Your task to perform on an android device: change your default location settings in chrome Image 0: 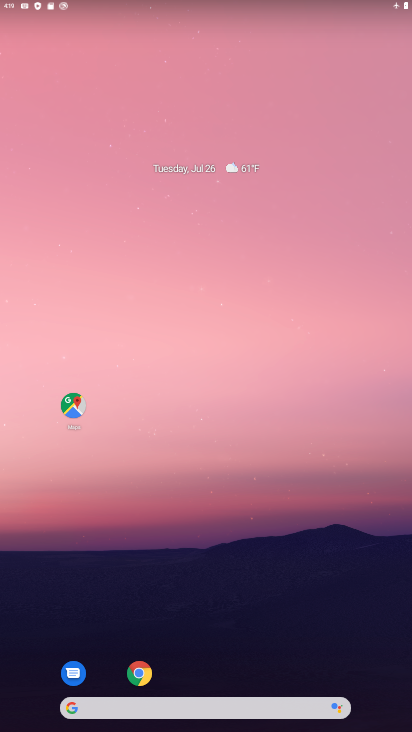
Step 0: press home button
Your task to perform on an android device: change your default location settings in chrome Image 1: 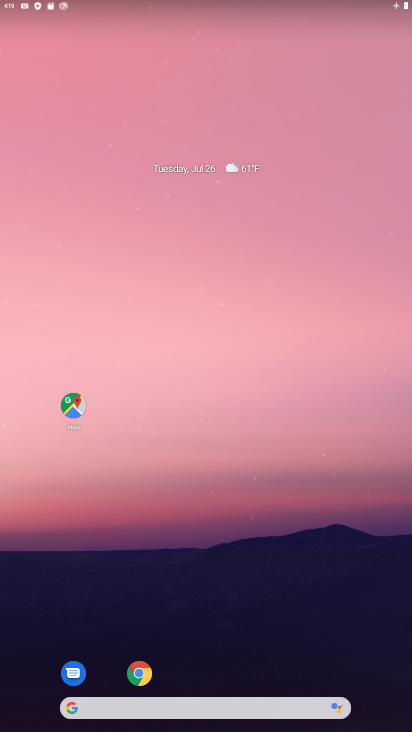
Step 1: click (137, 668)
Your task to perform on an android device: change your default location settings in chrome Image 2: 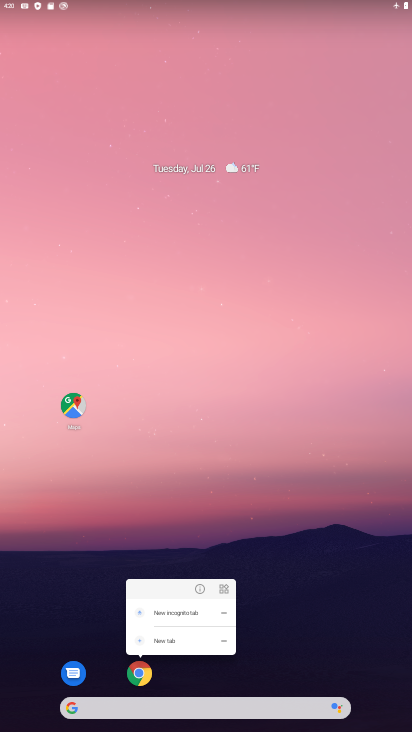
Step 2: click (140, 671)
Your task to perform on an android device: change your default location settings in chrome Image 3: 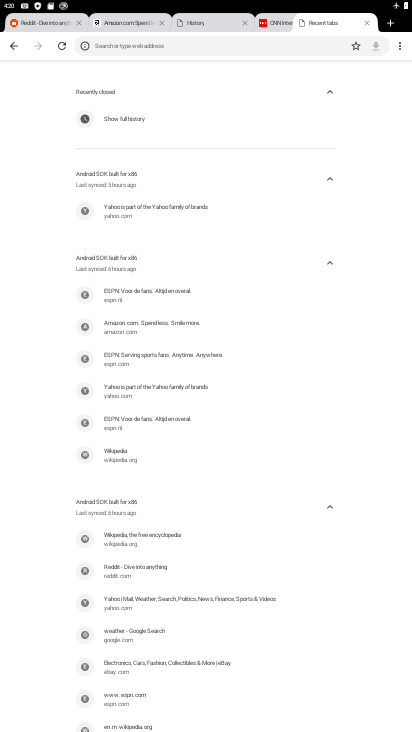
Step 3: click (395, 47)
Your task to perform on an android device: change your default location settings in chrome Image 4: 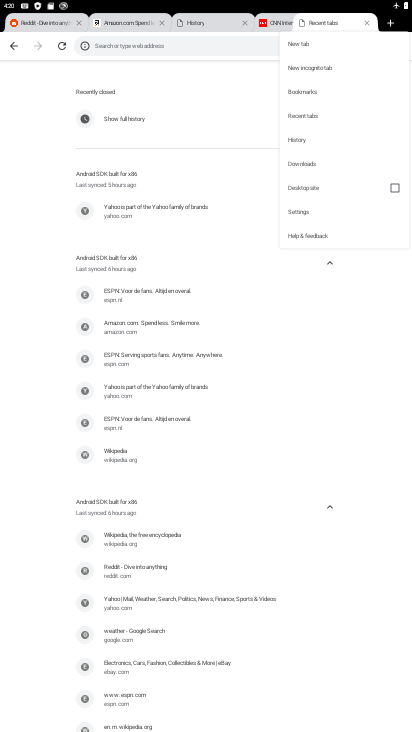
Step 4: click (310, 209)
Your task to perform on an android device: change your default location settings in chrome Image 5: 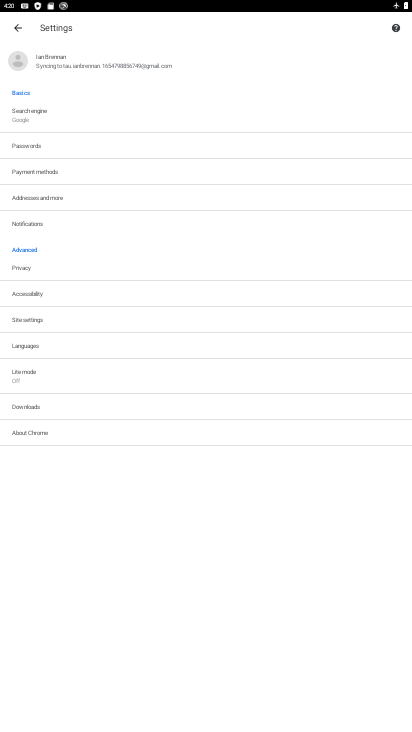
Step 5: click (39, 322)
Your task to perform on an android device: change your default location settings in chrome Image 6: 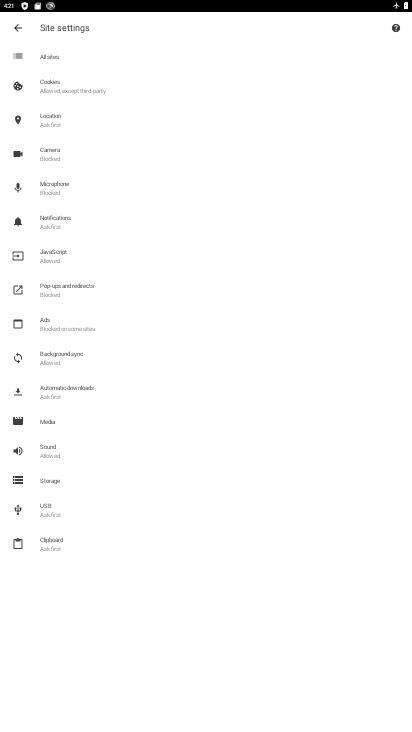
Step 6: click (56, 120)
Your task to perform on an android device: change your default location settings in chrome Image 7: 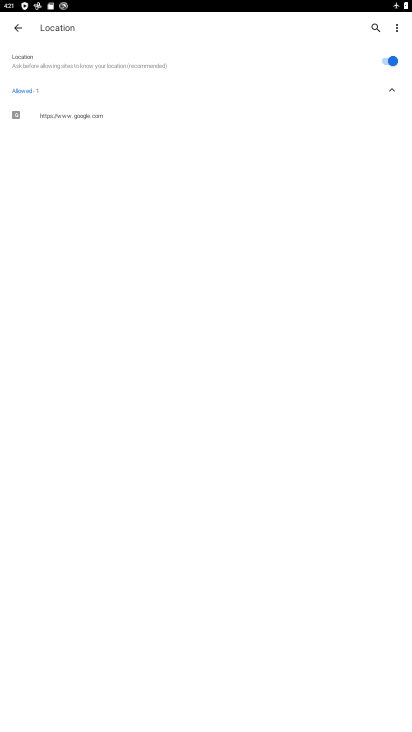
Step 7: click (381, 55)
Your task to perform on an android device: change your default location settings in chrome Image 8: 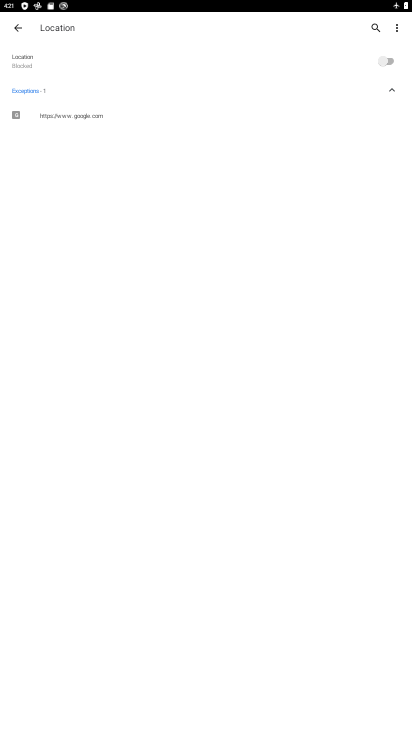
Step 8: task complete